Your task to perform on an android device: turn on the 24-hour format for clock Image 0: 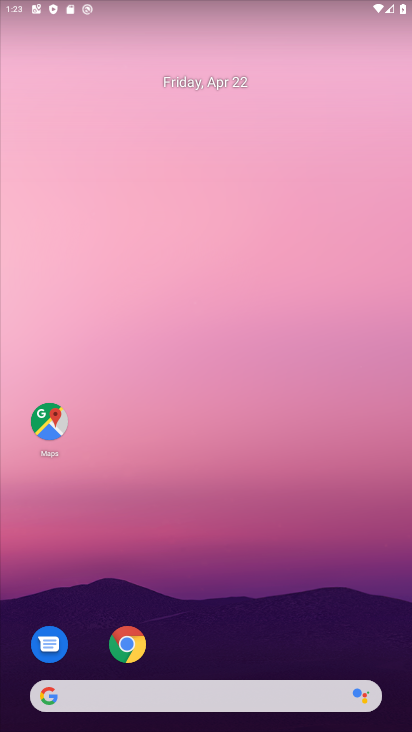
Step 0: drag from (288, 609) to (254, 309)
Your task to perform on an android device: turn on the 24-hour format for clock Image 1: 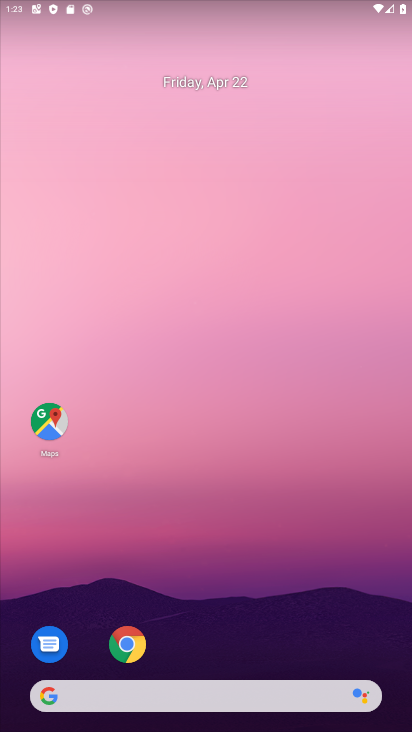
Step 1: drag from (267, 612) to (285, 127)
Your task to perform on an android device: turn on the 24-hour format for clock Image 2: 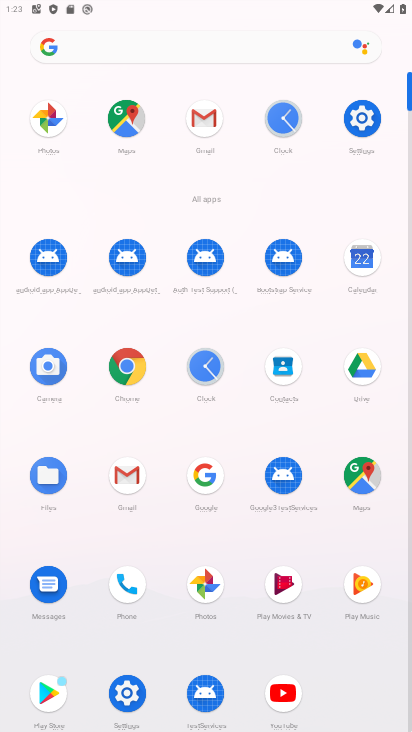
Step 2: click (286, 106)
Your task to perform on an android device: turn on the 24-hour format for clock Image 3: 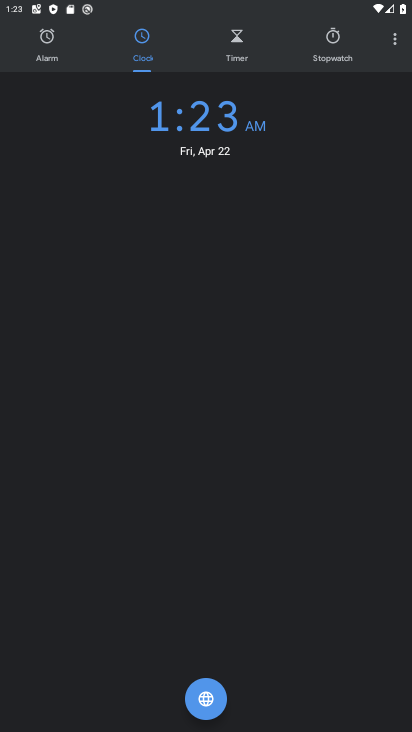
Step 3: click (396, 48)
Your task to perform on an android device: turn on the 24-hour format for clock Image 4: 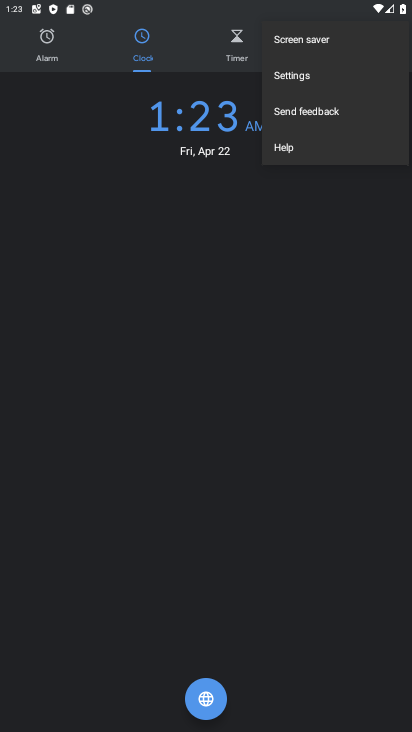
Step 4: click (361, 88)
Your task to perform on an android device: turn on the 24-hour format for clock Image 5: 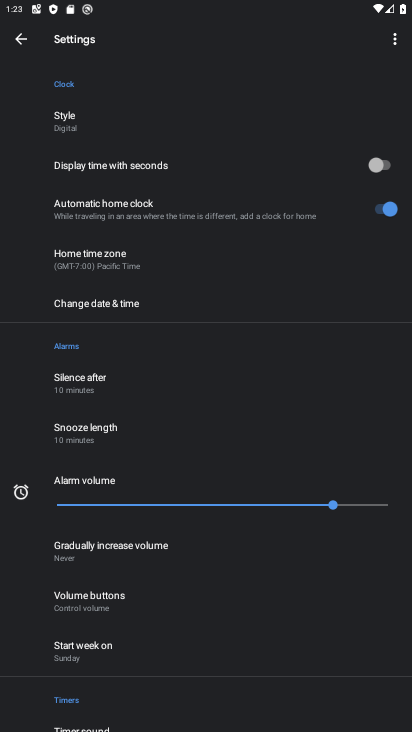
Step 5: click (228, 310)
Your task to perform on an android device: turn on the 24-hour format for clock Image 6: 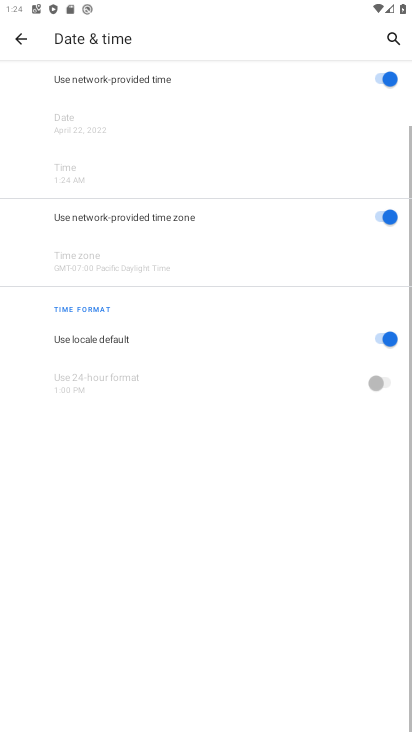
Step 6: click (379, 340)
Your task to perform on an android device: turn on the 24-hour format for clock Image 7: 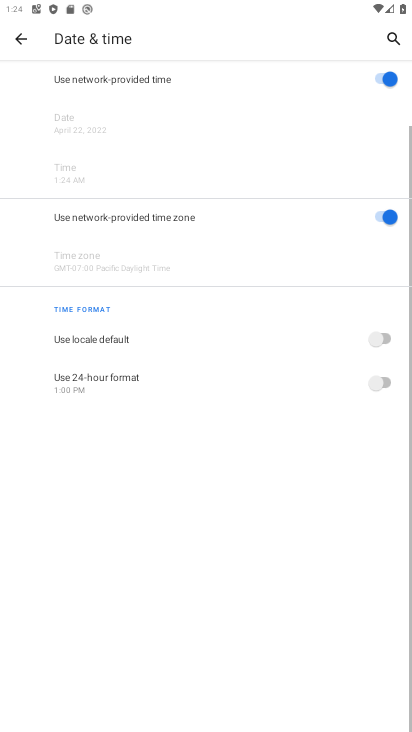
Step 7: click (379, 377)
Your task to perform on an android device: turn on the 24-hour format for clock Image 8: 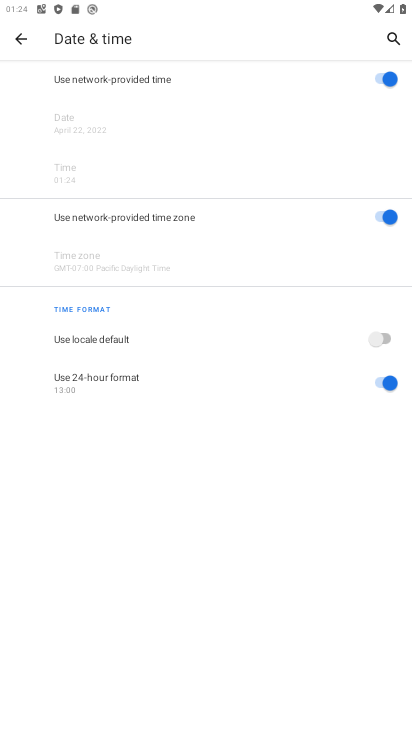
Step 8: task complete